Your task to perform on an android device: find snoozed emails in the gmail app Image 0: 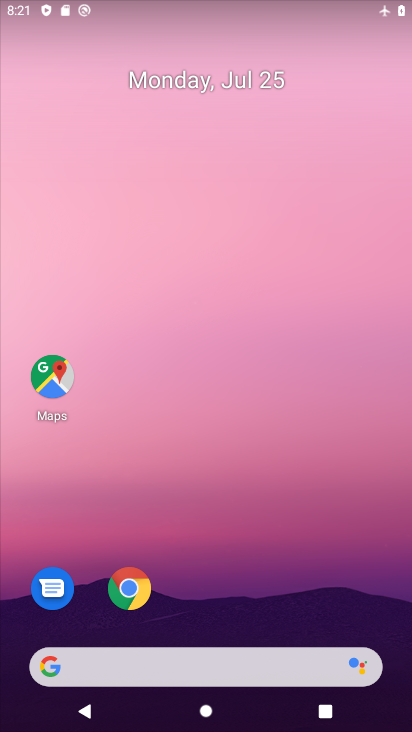
Step 0: drag from (113, 651) to (111, 95)
Your task to perform on an android device: find snoozed emails in the gmail app Image 1: 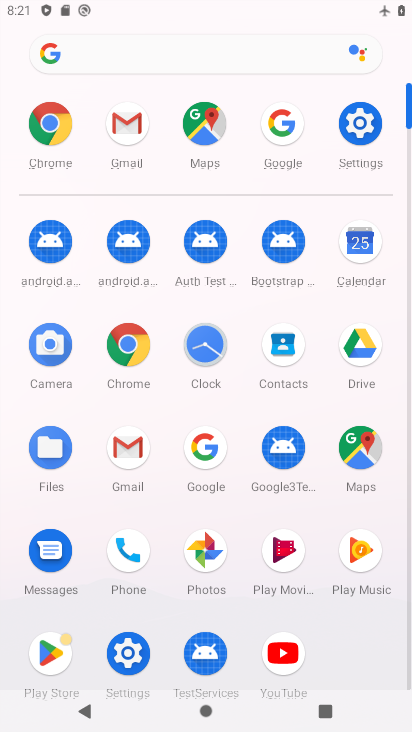
Step 1: click (111, 457)
Your task to perform on an android device: find snoozed emails in the gmail app Image 2: 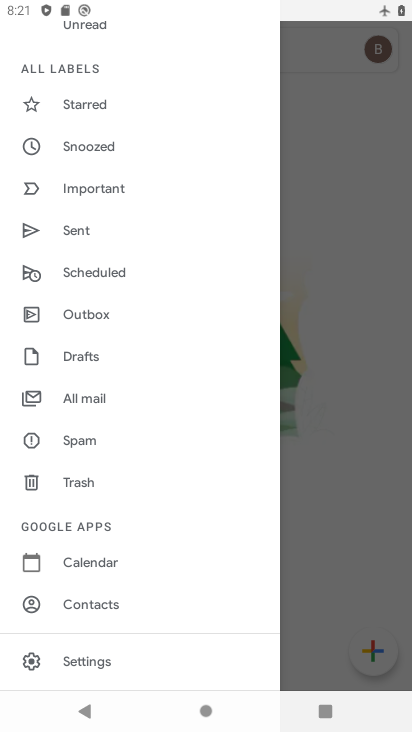
Step 2: click (75, 158)
Your task to perform on an android device: find snoozed emails in the gmail app Image 3: 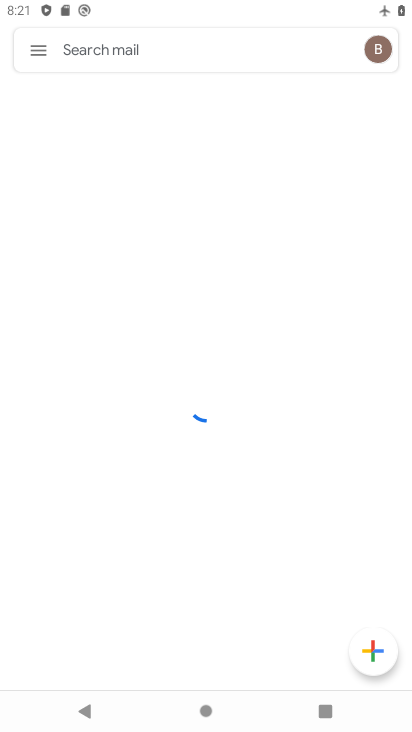
Step 3: task complete